Your task to perform on an android device: Search for vegetarian restaurants on Maps Image 0: 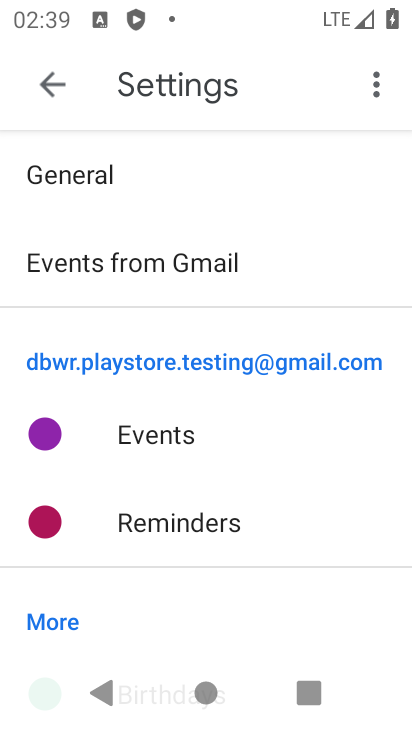
Step 0: press home button
Your task to perform on an android device: Search for vegetarian restaurants on Maps Image 1: 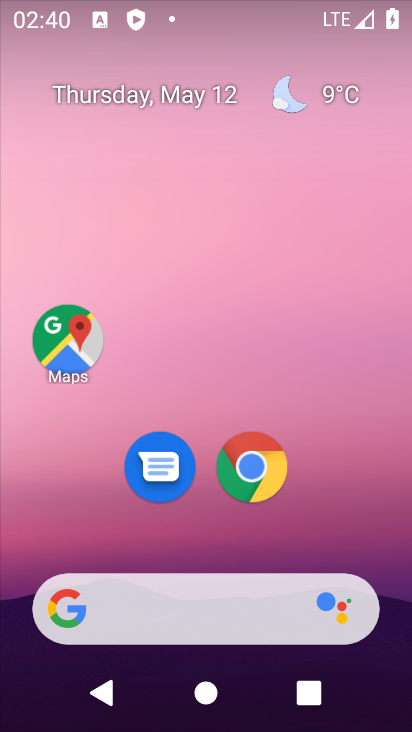
Step 1: drag from (306, 486) to (325, 254)
Your task to perform on an android device: Search for vegetarian restaurants on Maps Image 2: 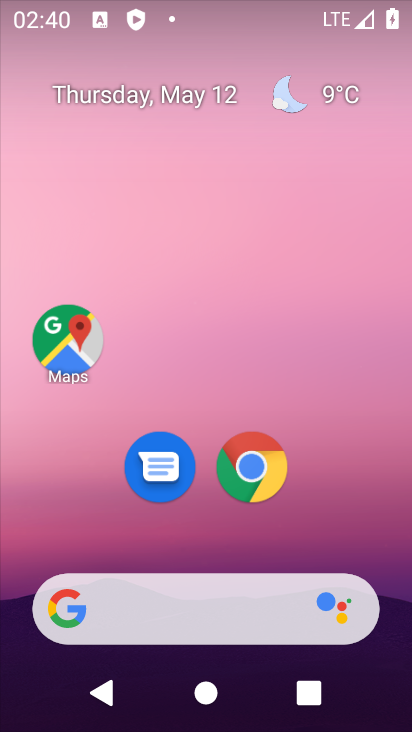
Step 2: drag from (306, 453) to (327, 191)
Your task to perform on an android device: Search for vegetarian restaurants on Maps Image 3: 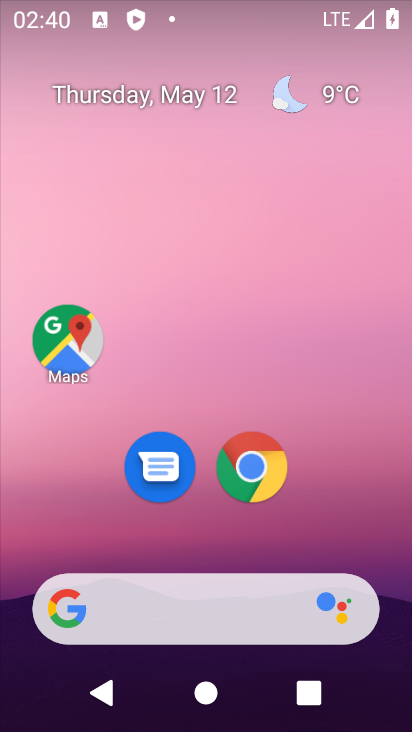
Step 3: drag from (212, 546) to (250, 93)
Your task to perform on an android device: Search for vegetarian restaurants on Maps Image 4: 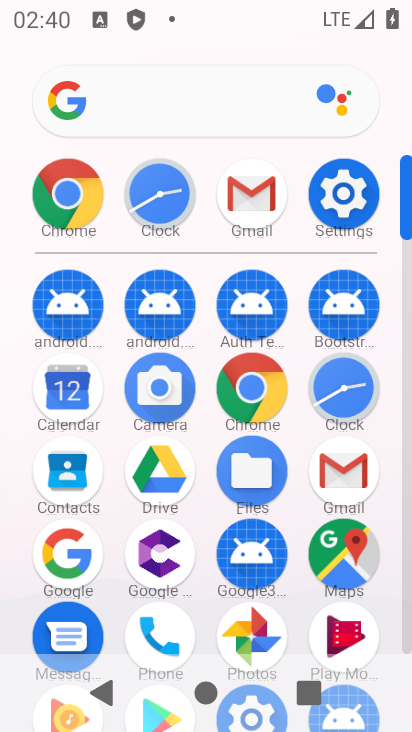
Step 4: click (329, 548)
Your task to perform on an android device: Search for vegetarian restaurants on Maps Image 5: 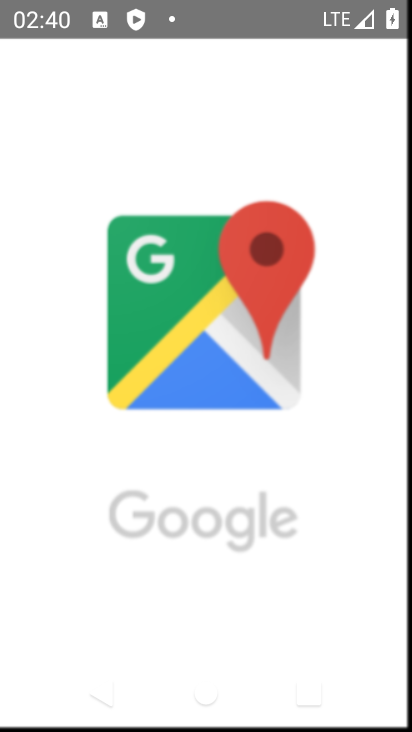
Step 5: task complete